Your task to perform on an android device: remove spam from my inbox in the gmail app Image 0: 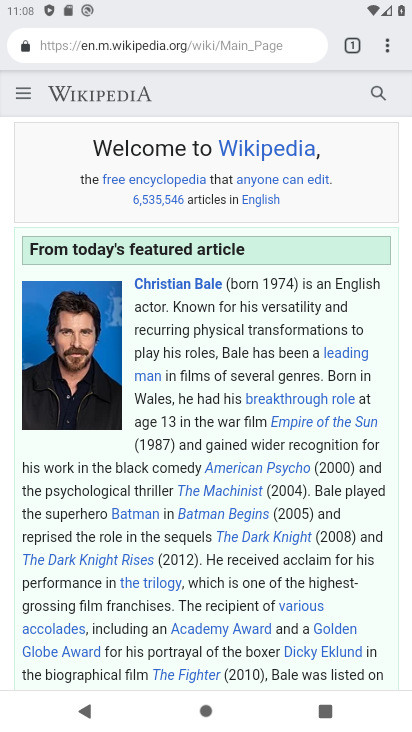
Step 0: press home button
Your task to perform on an android device: remove spam from my inbox in the gmail app Image 1: 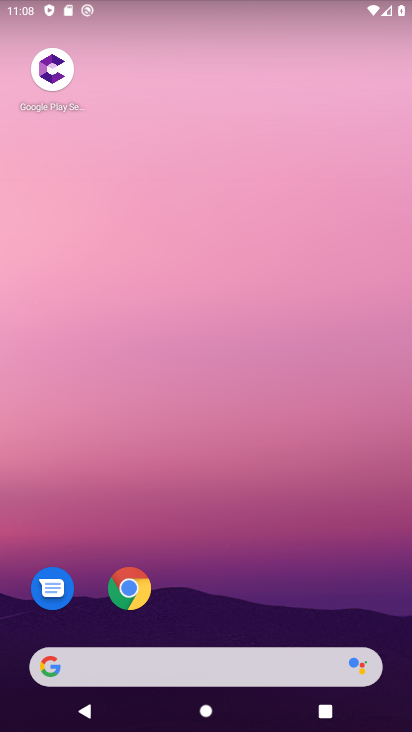
Step 1: drag from (279, 584) to (261, 7)
Your task to perform on an android device: remove spam from my inbox in the gmail app Image 2: 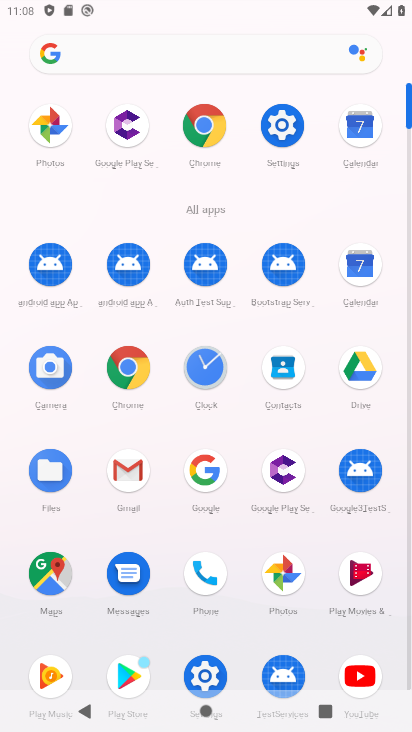
Step 2: click (137, 470)
Your task to perform on an android device: remove spam from my inbox in the gmail app Image 3: 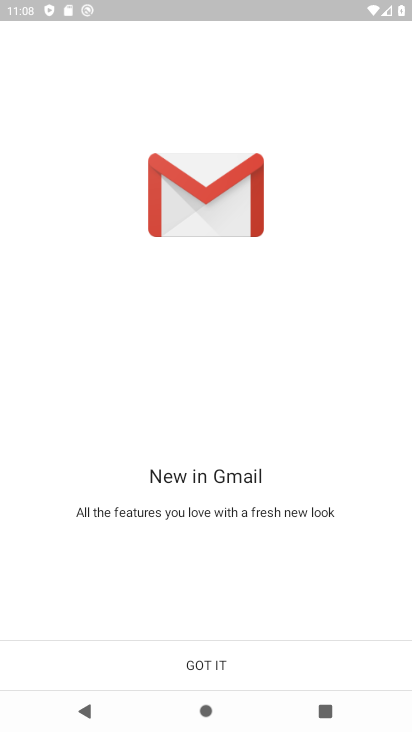
Step 3: click (246, 669)
Your task to perform on an android device: remove spam from my inbox in the gmail app Image 4: 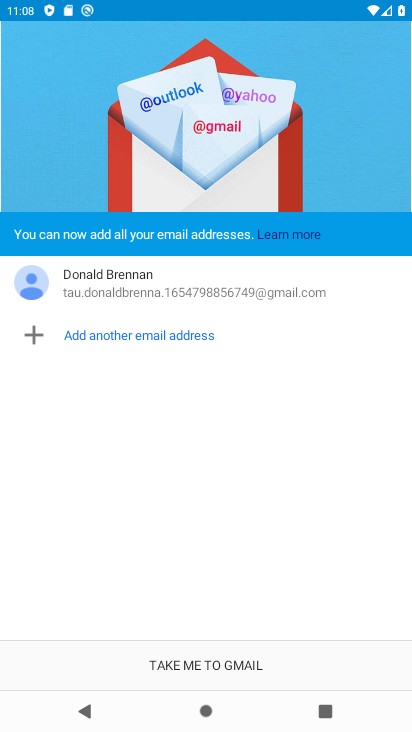
Step 4: click (236, 655)
Your task to perform on an android device: remove spam from my inbox in the gmail app Image 5: 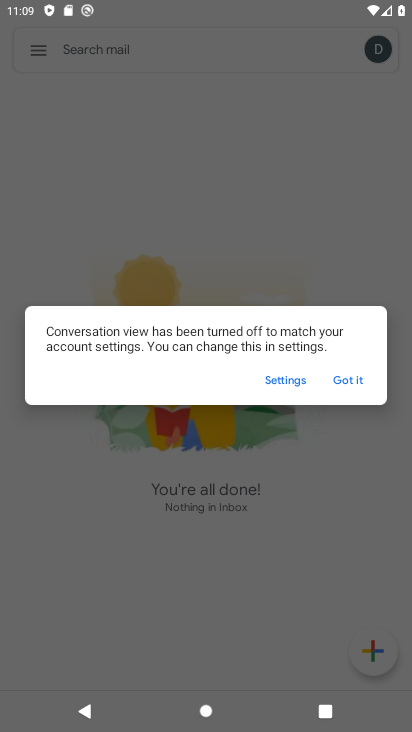
Step 5: click (348, 379)
Your task to perform on an android device: remove spam from my inbox in the gmail app Image 6: 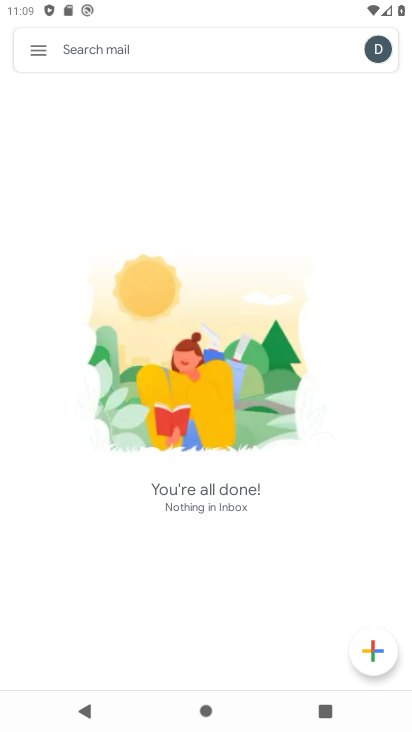
Step 6: click (39, 55)
Your task to perform on an android device: remove spam from my inbox in the gmail app Image 7: 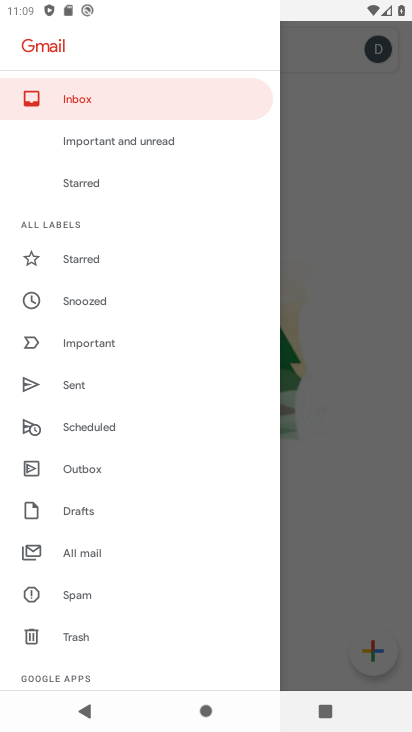
Step 7: click (66, 600)
Your task to perform on an android device: remove spam from my inbox in the gmail app Image 8: 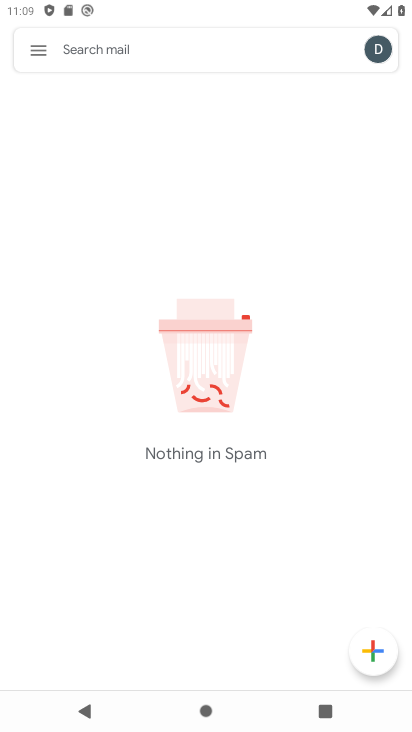
Step 8: task complete